Your task to perform on an android device: Do I have any events this weekend? Image 0: 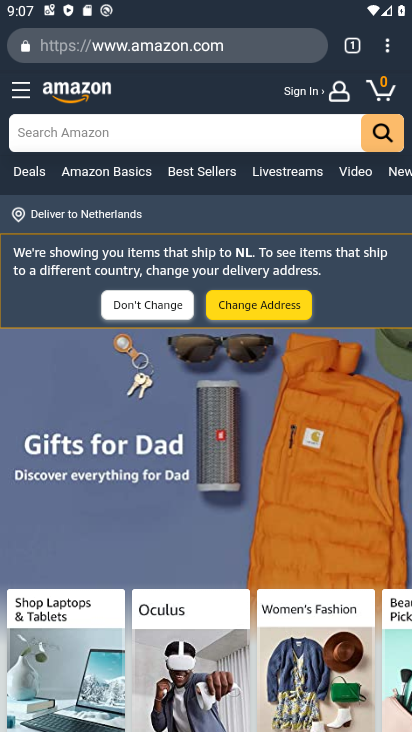
Step 0: press home button
Your task to perform on an android device: Do I have any events this weekend? Image 1: 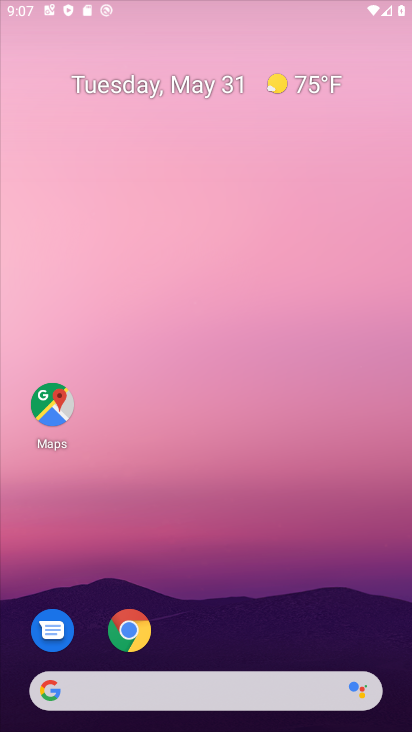
Step 1: drag from (225, 575) to (234, 121)
Your task to perform on an android device: Do I have any events this weekend? Image 2: 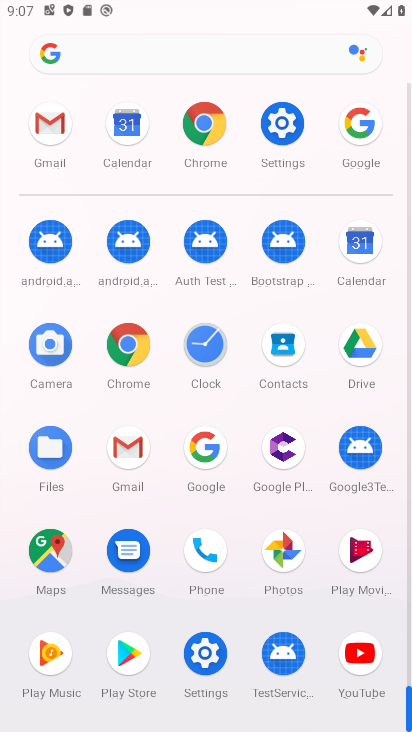
Step 2: drag from (199, 562) to (241, 270)
Your task to perform on an android device: Do I have any events this weekend? Image 3: 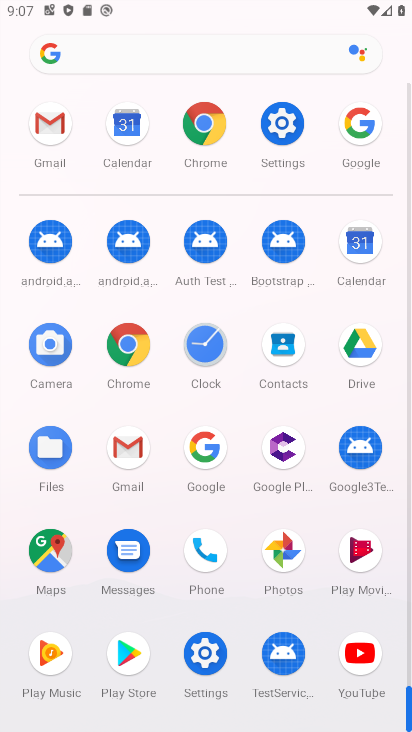
Step 3: click (362, 249)
Your task to perform on an android device: Do I have any events this weekend? Image 4: 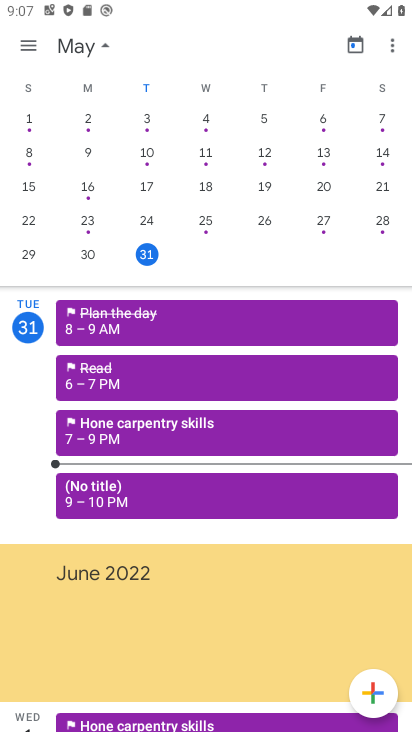
Step 4: task complete